Your task to perform on an android device: turn off location Image 0: 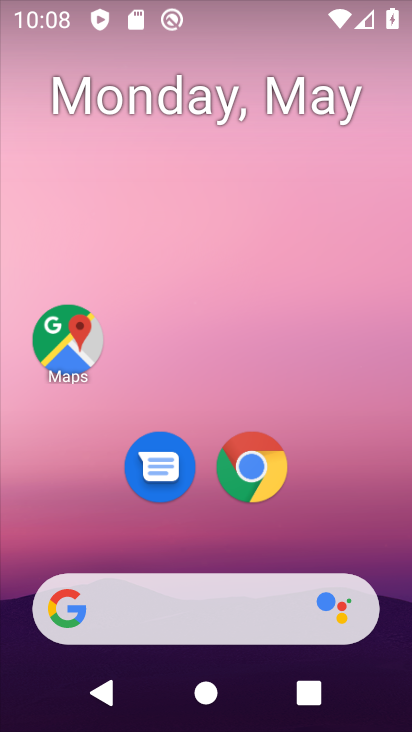
Step 0: drag from (297, 542) to (255, 7)
Your task to perform on an android device: turn off location Image 1: 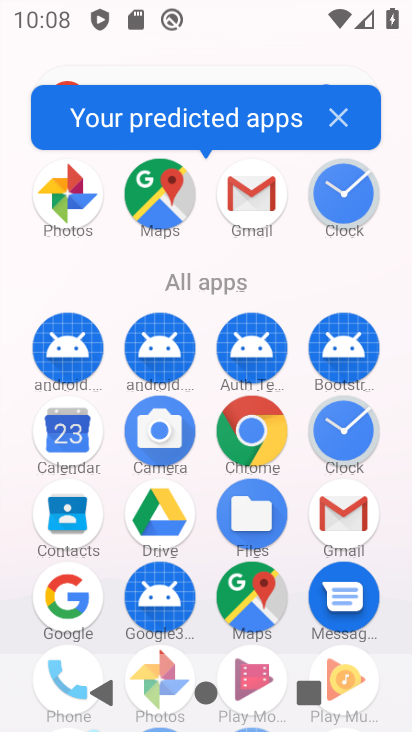
Step 1: drag from (289, 582) to (252, 66)
Your task to perform on an android device: turn off location Image 2: 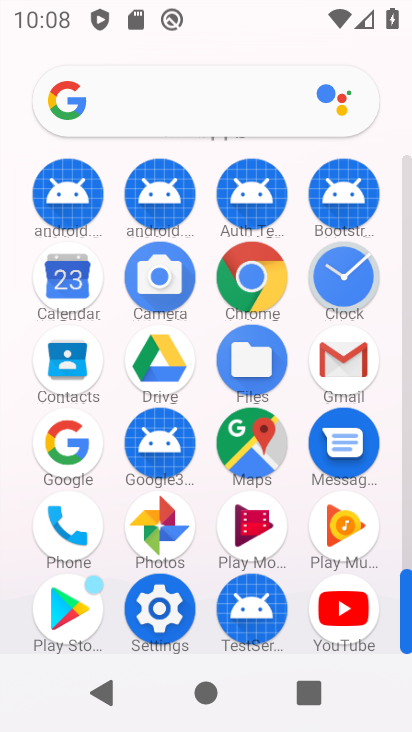
Step 2: click (172, 610)
Your task to perform on an android device: turn off location Image 3: 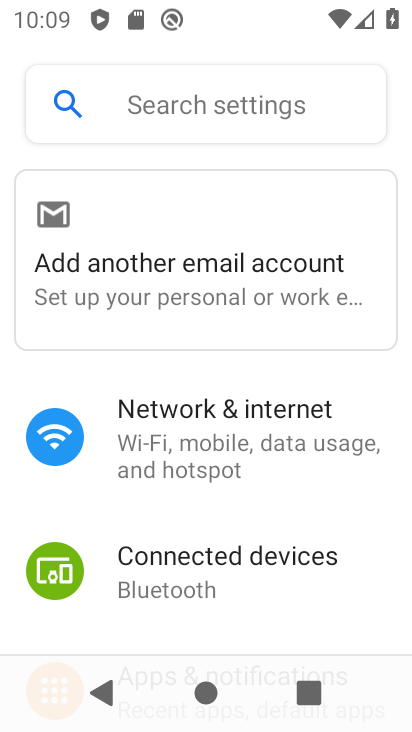
Step 3: drag from (315, 619) to (312, 255)
Your task to perform on an android device: turn off location Image 4: 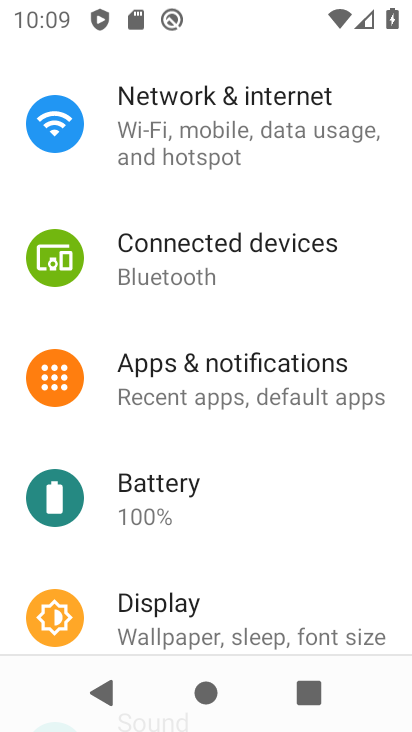
Step 4: click (211, 660)
Your task to perform on an android device: turn off location Image 5: 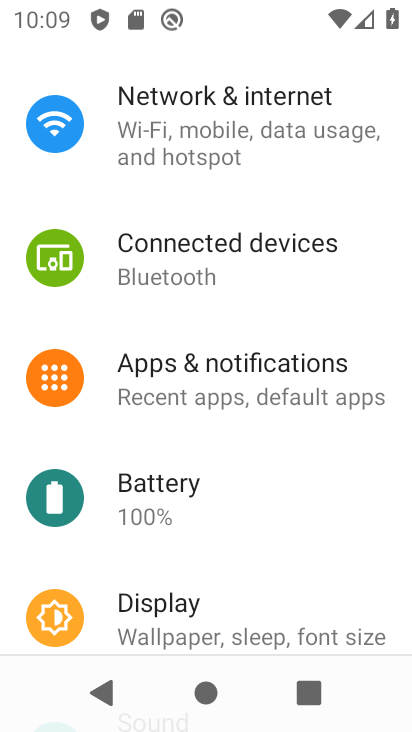
Step 5: drag from (203, 632) to (219, 189)
Your task to perform on an android device: turn off location Image 6: 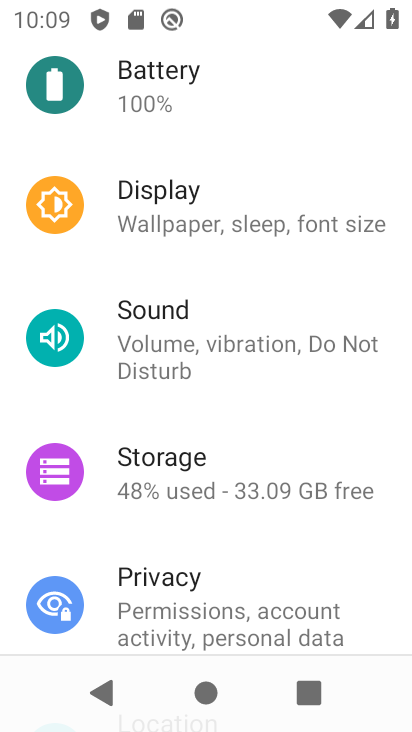
Step 6: drag from (242, 607) to (260, 201)
Your task to perform on an android device: turn off location Image 7: 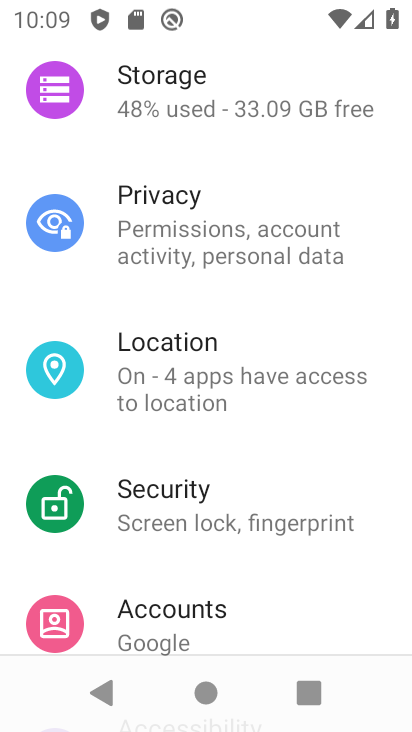
Step 7: click (258, 376)
Your task to perform on an android device: turn off location Image 8: 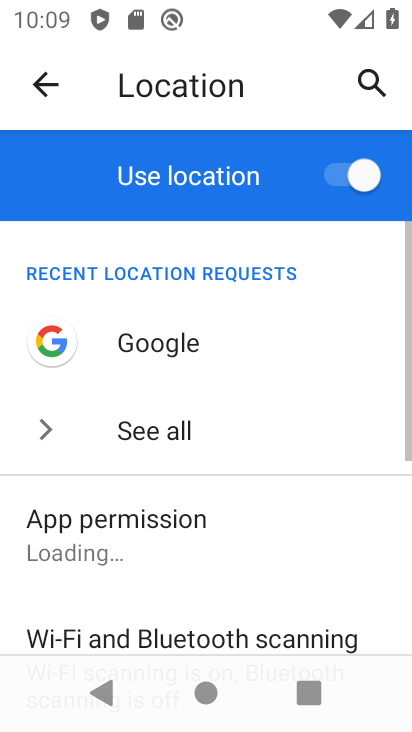
Step 8: click (342, 176)
Your task to perform on an android device: turn off location Image 9: 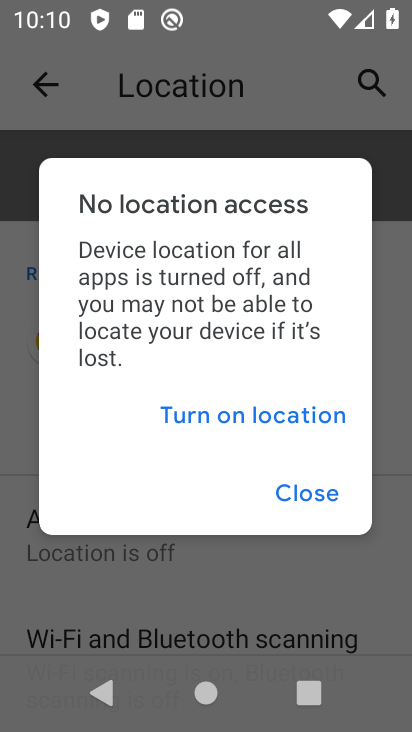
Step 9: click (317, 500)
Your task to perform on an android device: turn off location Image 10: 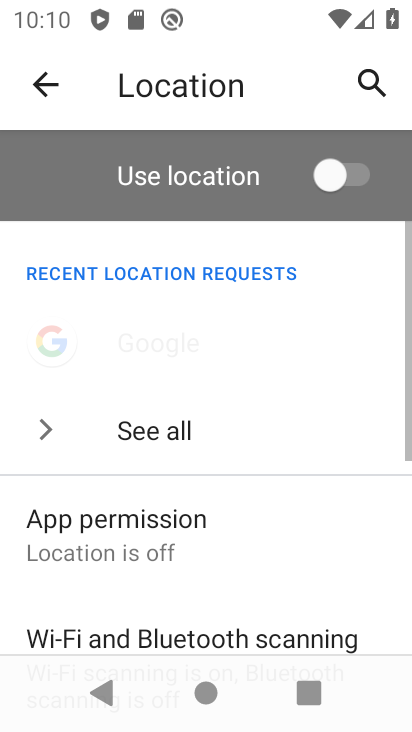
Step 10: task complete